Your task to perform on an android device: Open Google Image 0: 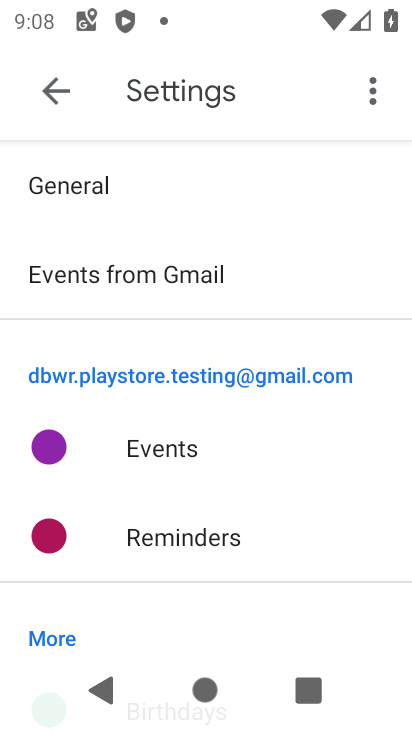
Step 0: press home button
Your task to perform on an android device: Open Google Image 1: 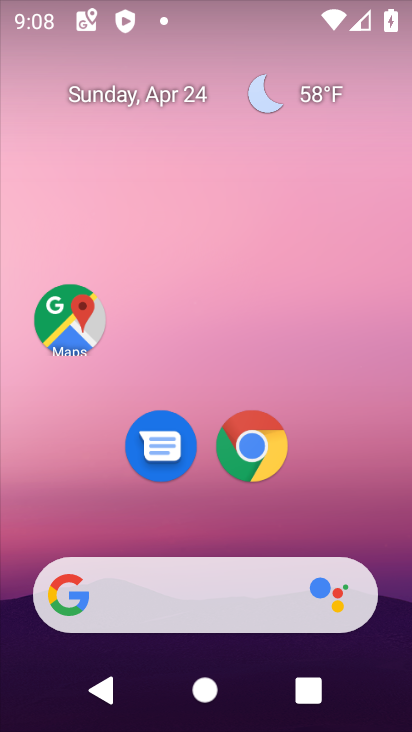
Step 1: drag from (199, 600) to (345, 151)
Your task to perform on an android device: Open Google Image 2: 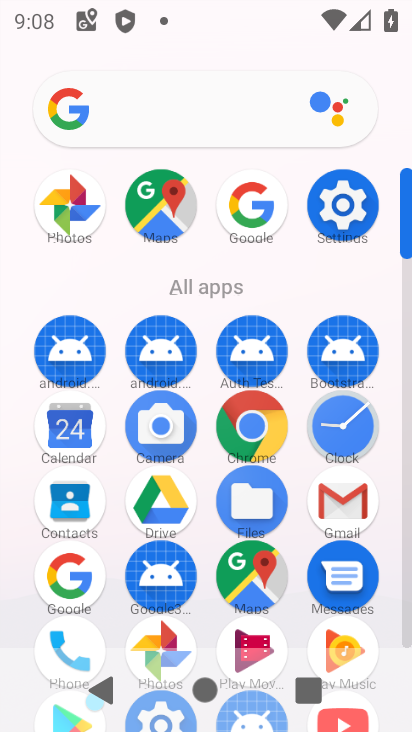
Step 2: click (255, 438)
Your task to perform on an android device: Open Google Image 3: 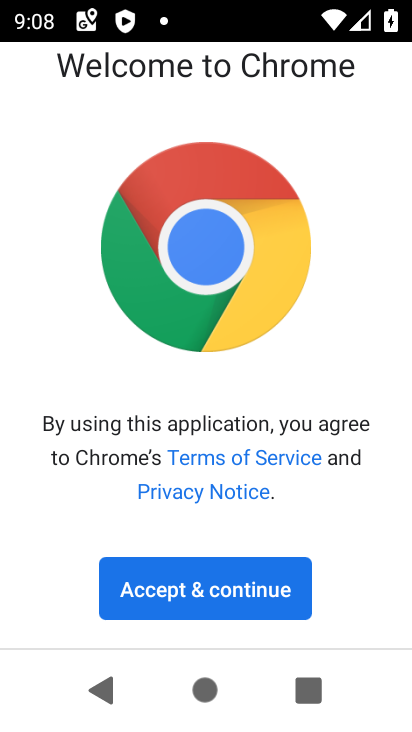
Step 3: click (218, 575)
Your task to perform on an android device: Open Google Image 4: 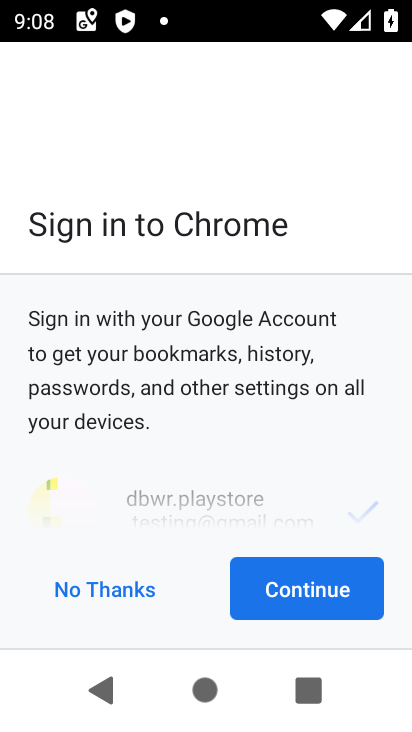
Step 4: click (294, 594)
Your task to perform on an android device: Open Google Image 5: 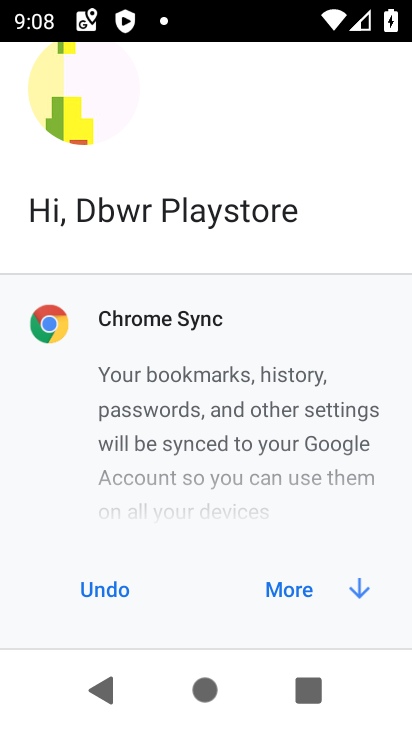
Step 5: click (294, 594)
Your task to perform on an android device: Open Google Image 6: 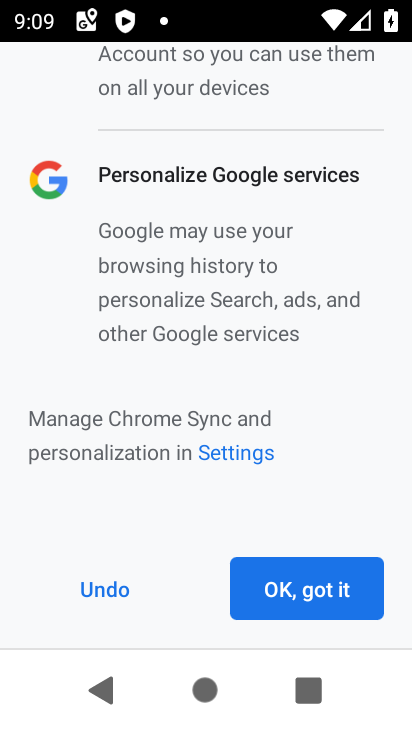
Step 6: click (295, 590)
Your task to perform on an android device: Open Google Image 7: 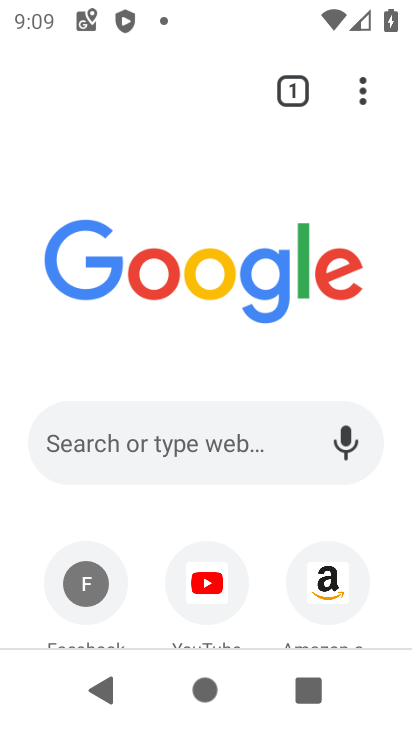
Step 7: task complete